Your task to perform on an android device: Open the map Image 0: 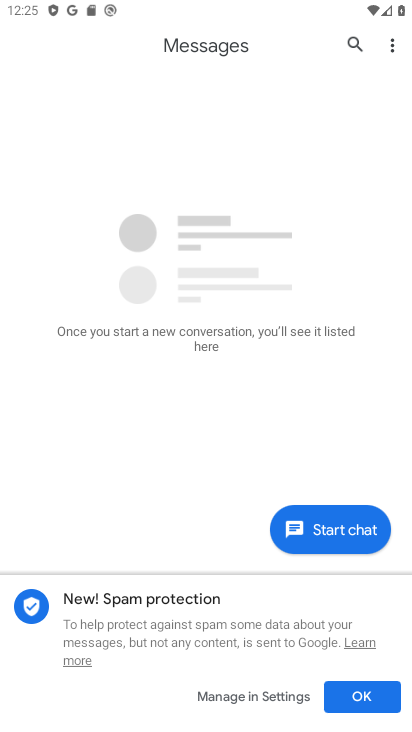
Step 0: press home button
Your task to perform on an android device: Open the map Image 1: 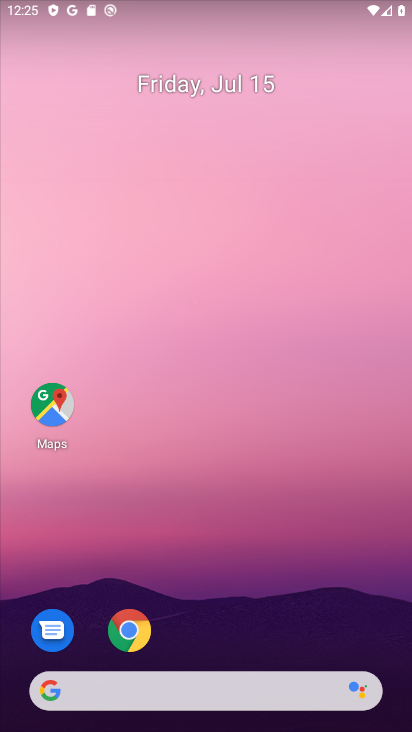
Step 1: click (51, 423)
Your task to perform on an android device: Open the map Image 2: 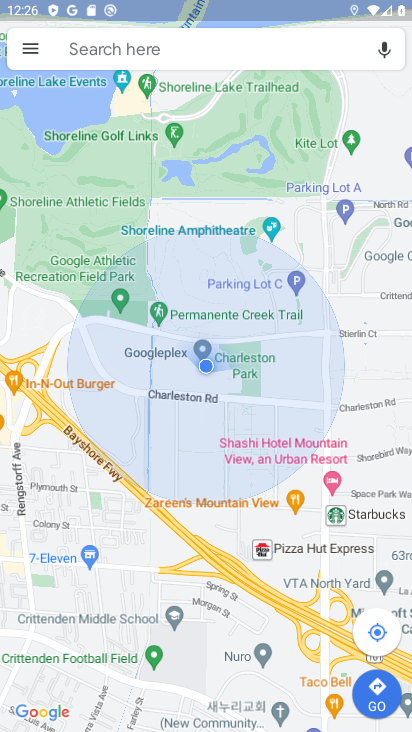
Step 2: task complete